Your task to perform on an android device: find photos in the google photos app Image 0: 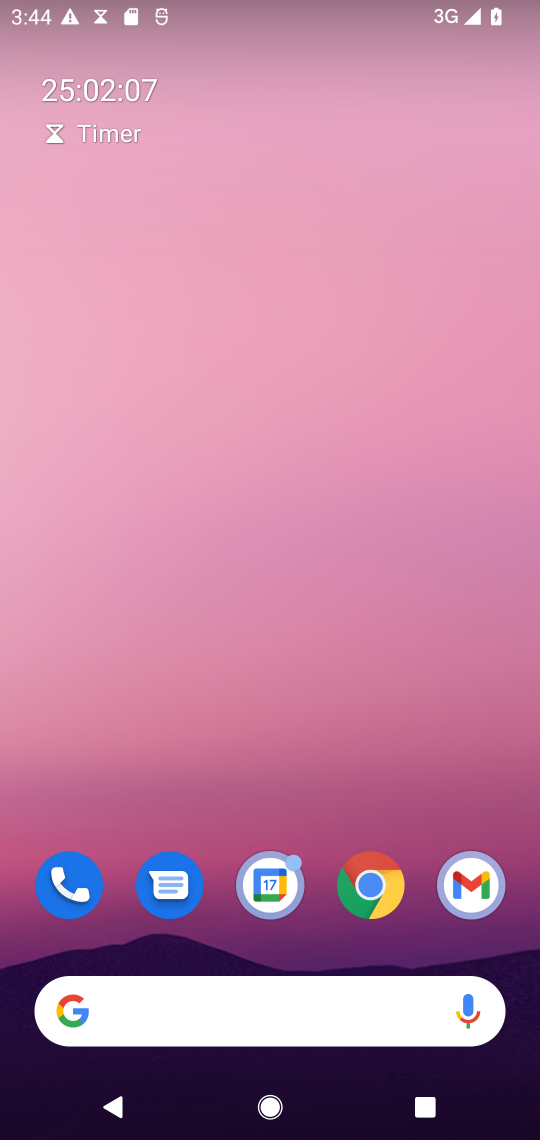
Step 0: drag from (391, 1035) to (306, 40)
Your task to perform on an android device: find photos in the google photos app Image 1: 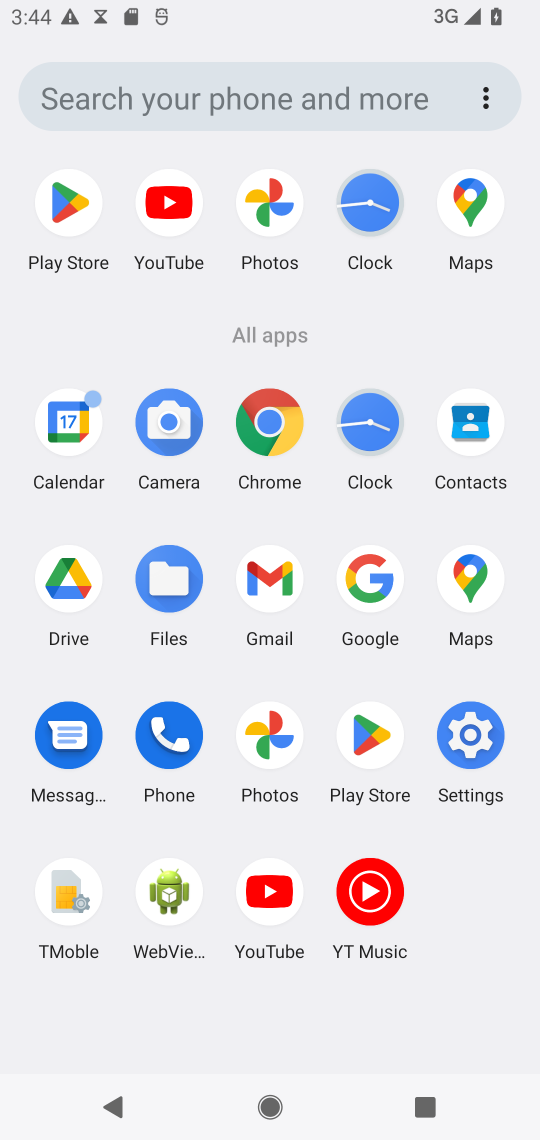
Step 1: click (283, 757)
Your task to perform on an android device: find photos in the google photos app Image 2: 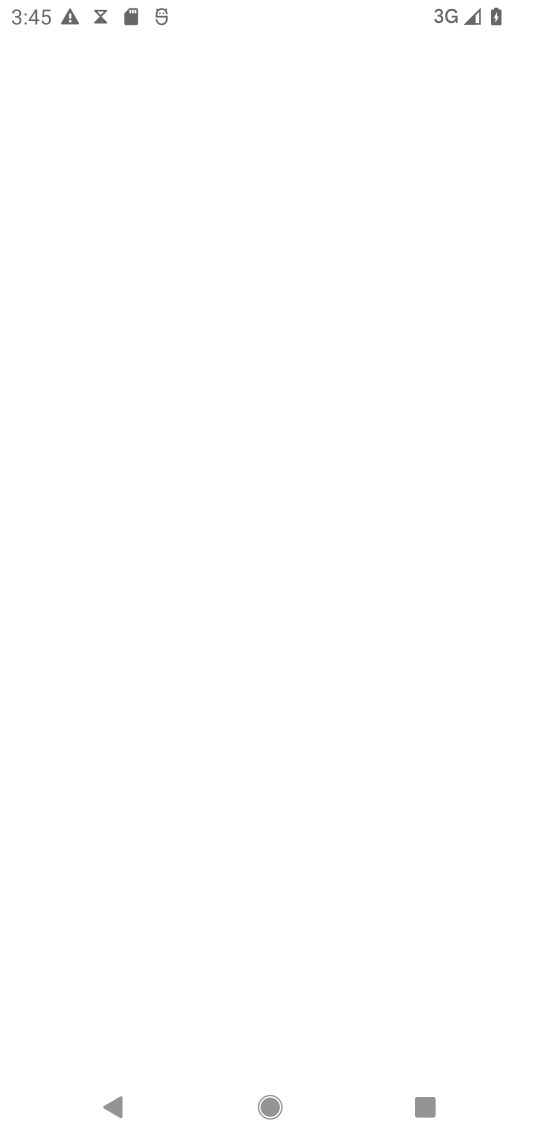
Step 2: task complete